Your task to perform on an android device: Open internet settings Image 0: 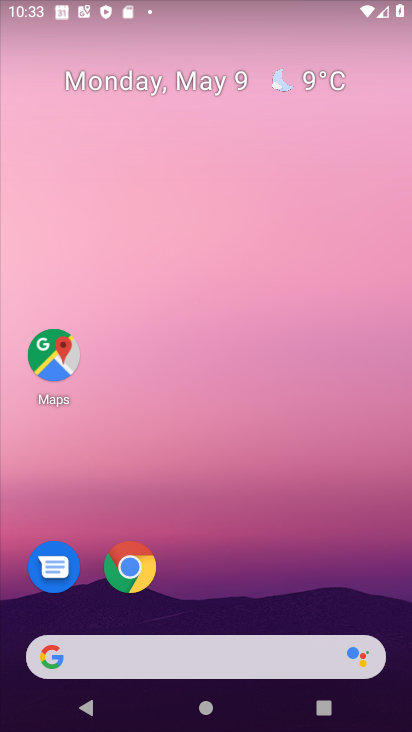
Step 0: drag from (207, 599) to (228, 55)
Your task to perform on an android device: Open internet settings Image 1: 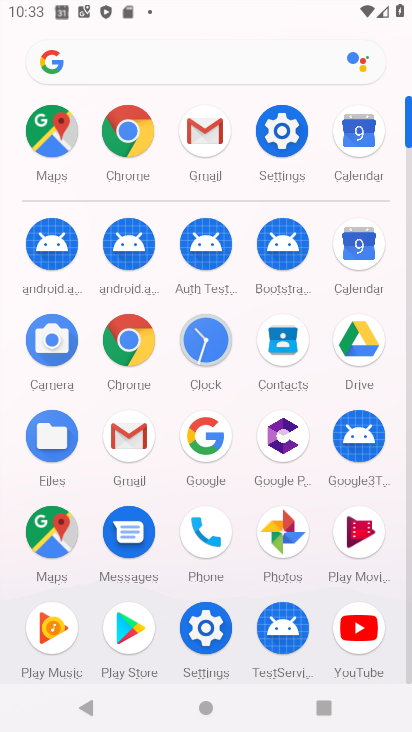
Step 1: click (284, 123)
Your task to perform on an android device: Open internet settings Image 2: 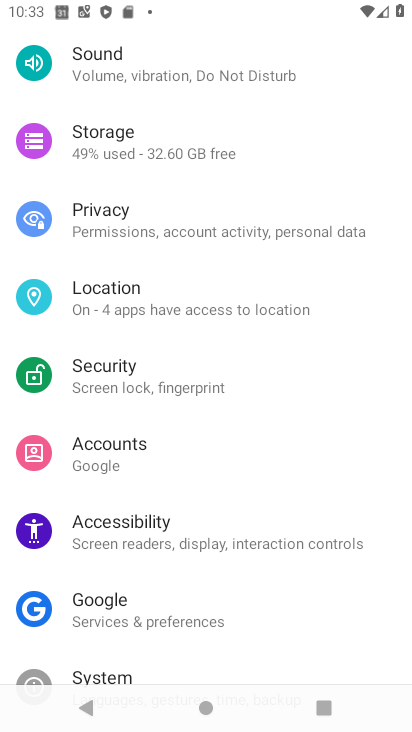
Step 2: drag from (183, 129) to (199, 696)
Your task to perform on an android device: Open internet settings Image 3: 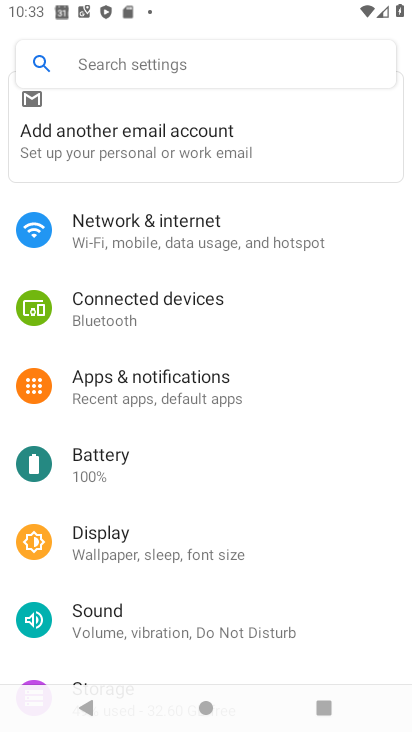
Step 3: click (179, 230)
Your task to perform on an android device: Open internet settings Image 4: 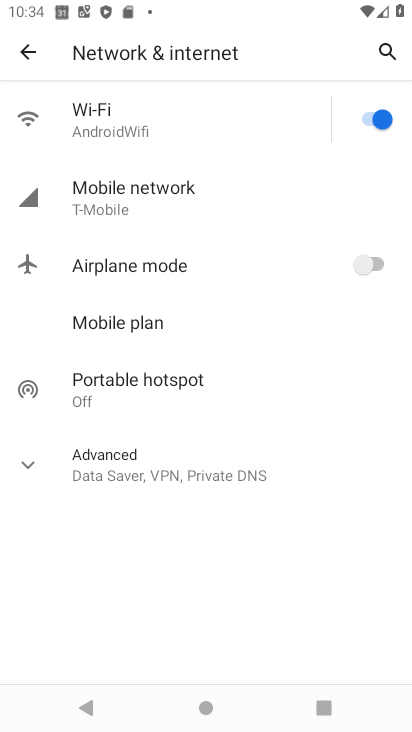
Step 4: click (20, 466)
Your task to perform on an android device: Open internet settings Image 5: 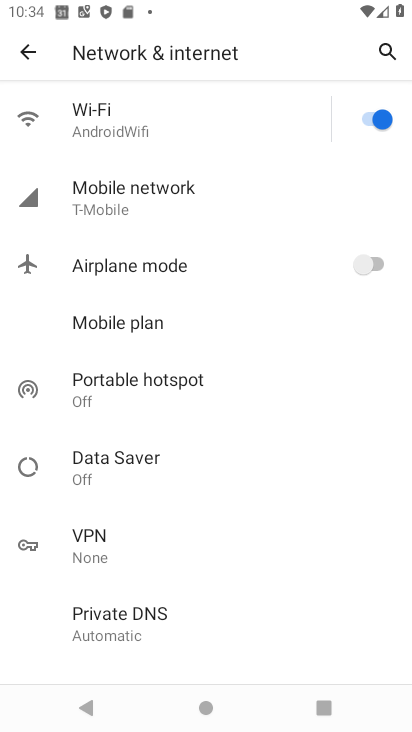
Step 5: task complete